Your task to perform on an android device: Open ESPN.com Image 0: 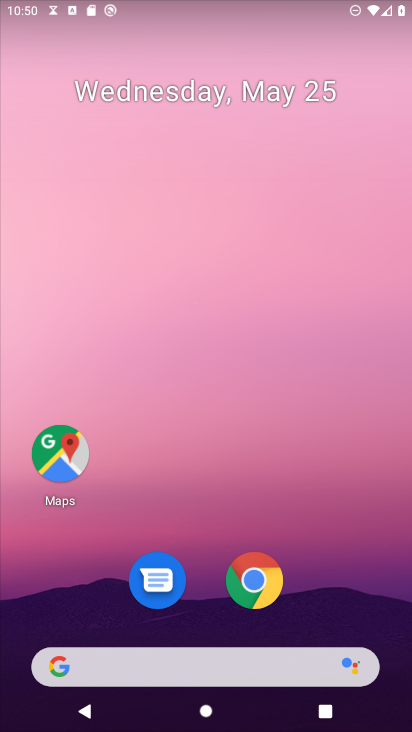
Step 0: press home button
Your task to perform on an android device: Open ESPN.com Image 1: 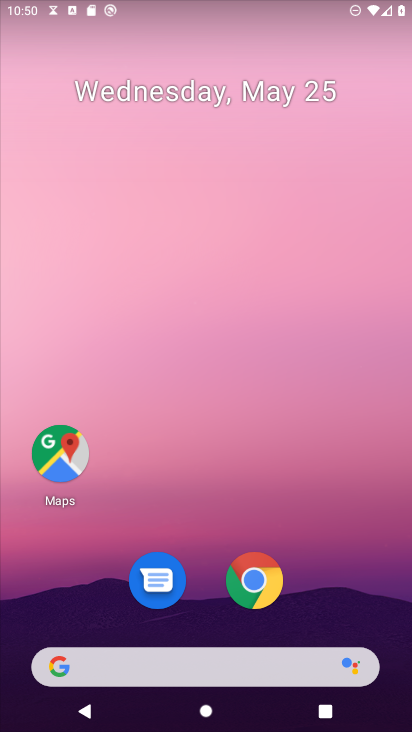
Step 1: click (260, 591)
Your task to perform on an android device: Open ESPN.com Image 2: 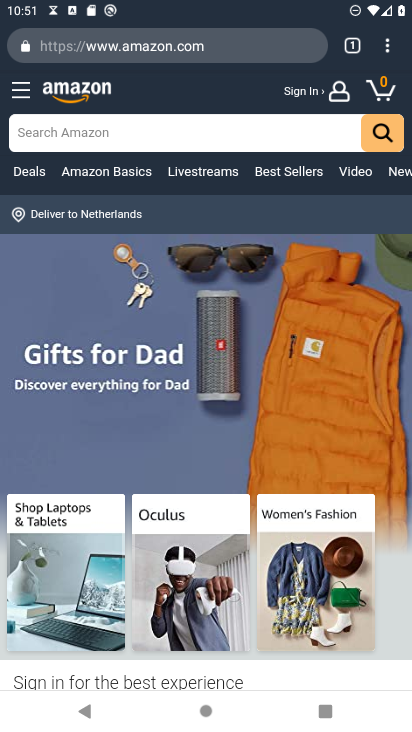
Step 2: click (348, 41)
Your task to perform on an android device: Open ESPN.com Image 3: 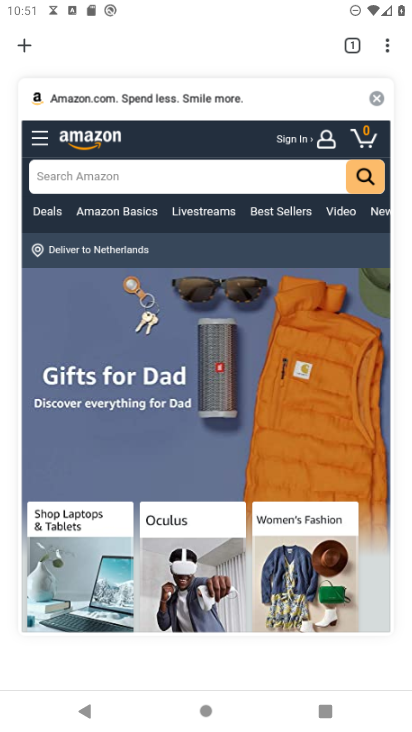
Step 3: click (374, 94)
Your task to perform on an android device: Open ESPN.com Image 4: 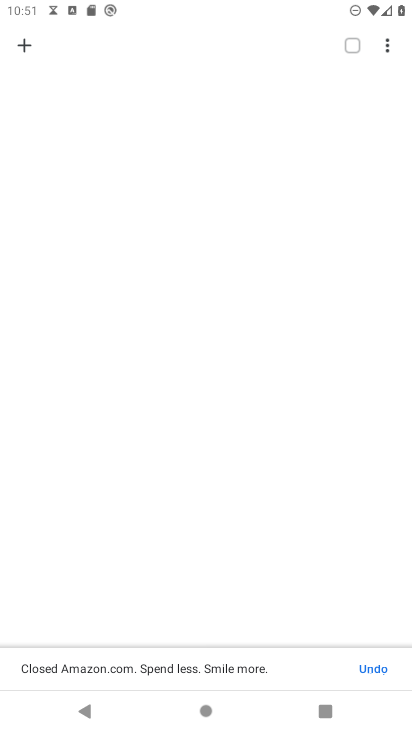
Step 4: click (26, 43)
Your task to perform on an android device: Open ESPN.com Image 5: 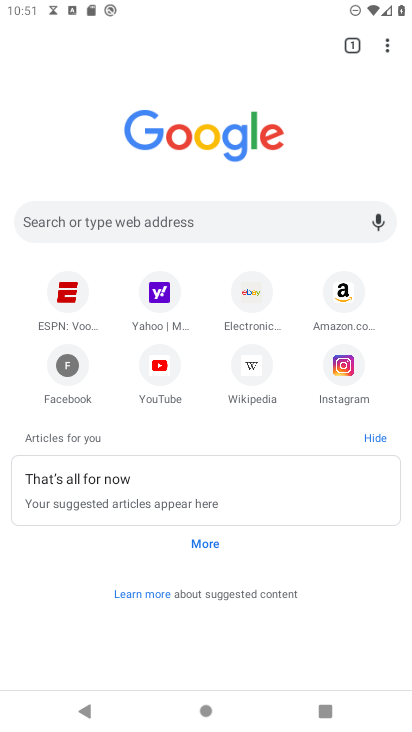
Step 5: click (77, 289)
Your task to perform on an android device: Open ESPN.com Image 6: 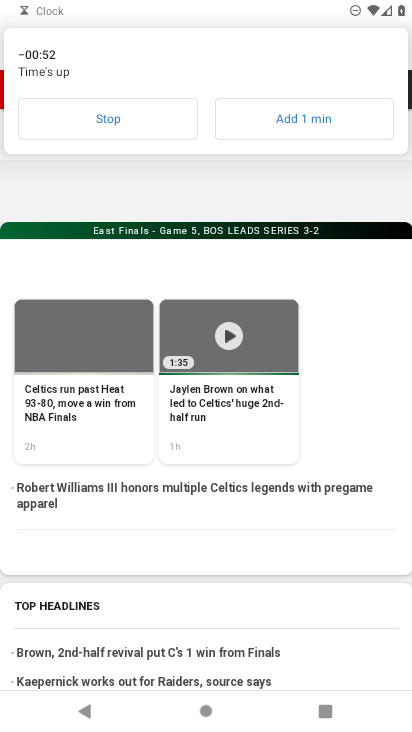
Step 6: task complete